Your task to perform on an android device: toggle notifications settings in the gmail app Image 0: 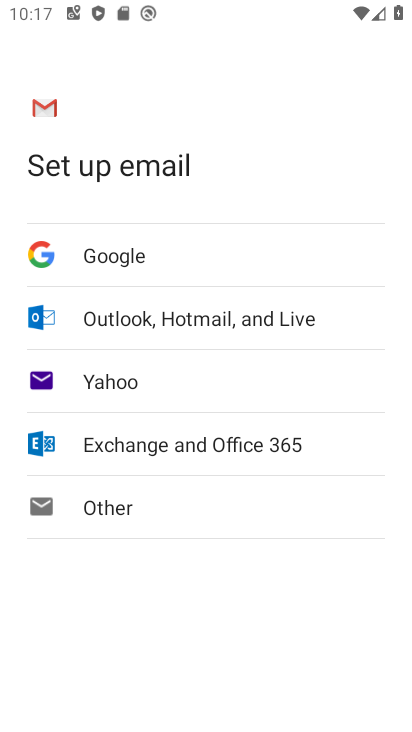
Step 0: press home button
Your task to perform on an android device: toggle notifications settings in the gmail app Image 1: 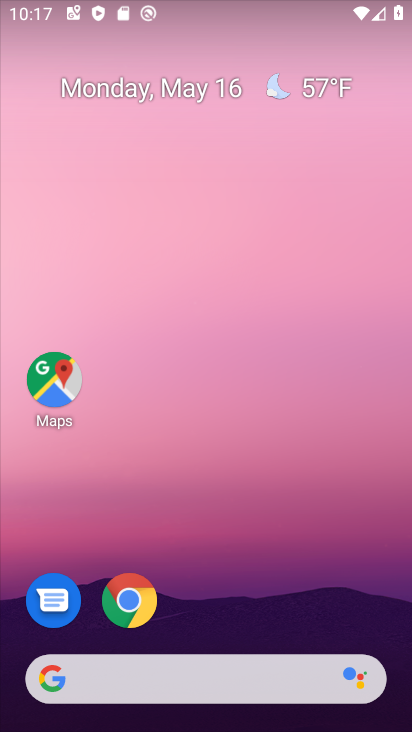
Step 1: drag from (336, 645) to (275, 189)
Your task to perform on an android device: toggle notifications settings in the gmail app Image 2: 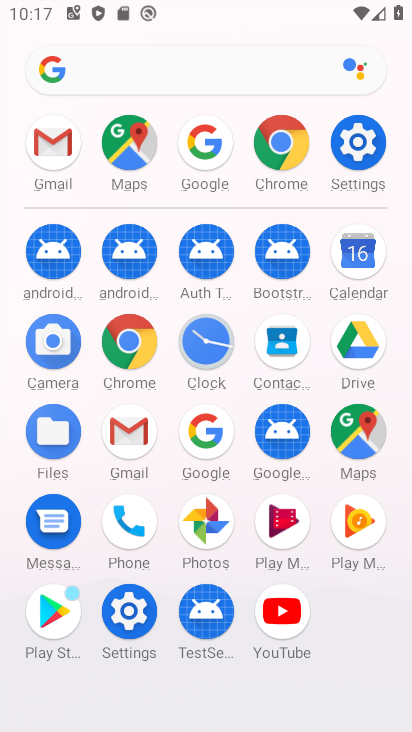
Step 2: click (130, 423)
Your task to perform on an android device: toggle notifications settings in the gmail app Image 3: 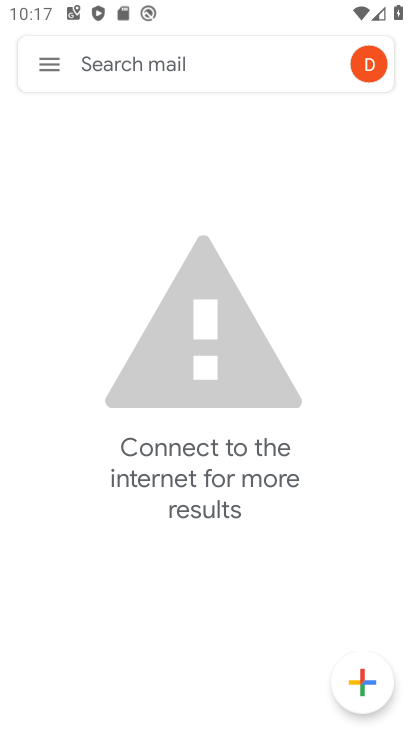
Step 3: click (47, 71)
Your task to perform on an android device: toggle notifications settings in the gmail app Image 4: 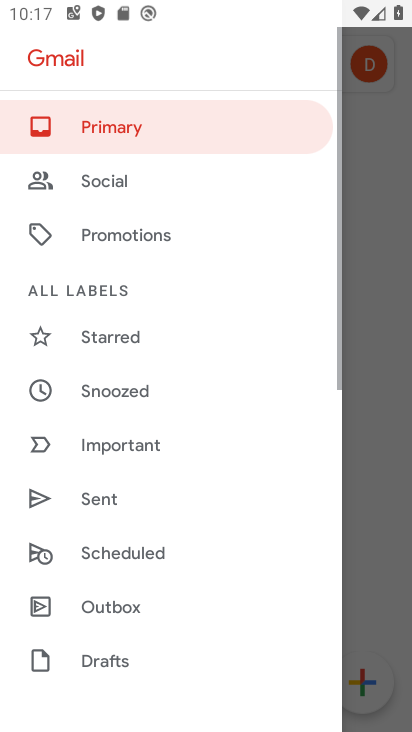
Step 4: drag from (201, 582) to (201, 194)
Your task to perform on an android device: toggle notifications settings in the gmail app Image 5: 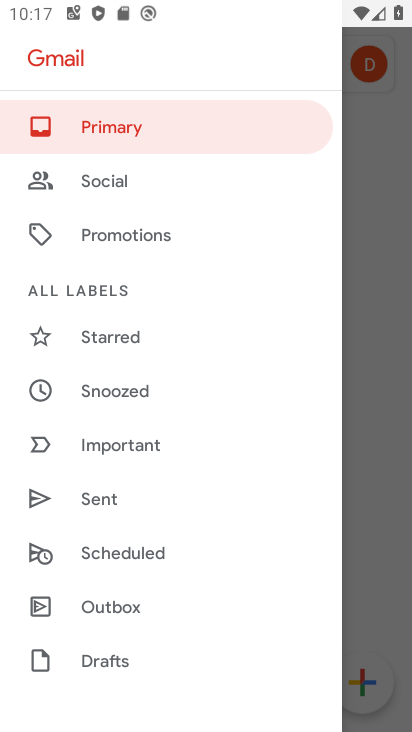
Step 5: drag from (193, 634) to (173, 289)
Your task to perform on an android device: toggle notifications settings in the gmail app Image 6: 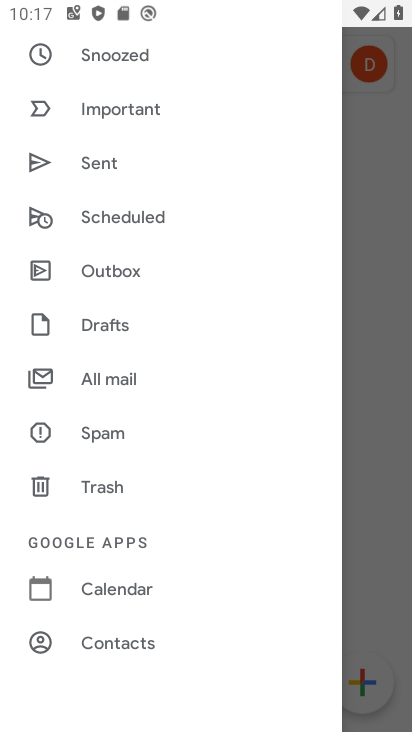
Step 6: drag from (162, 602) to (229, 239)
Your task to perform on an android device: toggle notifications settings in the gmail app Image 7: 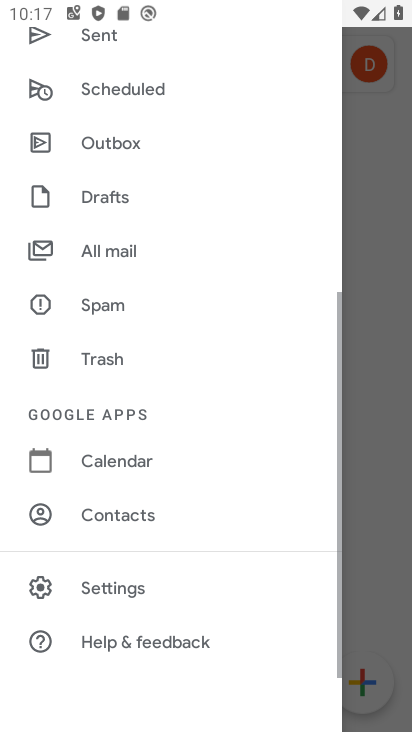
Step 7: click (139, 590)
Your task to perform on an android device: toggle notifications settings in the gmail app Image 8: 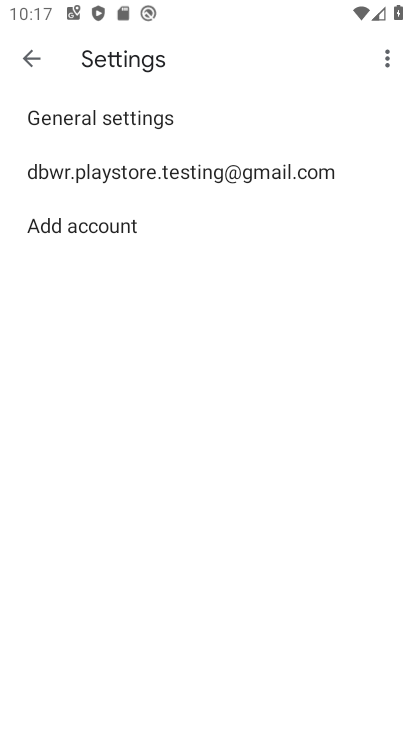
Step 8: click (269, 187)
Your task to perform on an android device: toggle notifications settings in the gmail app Image 9: 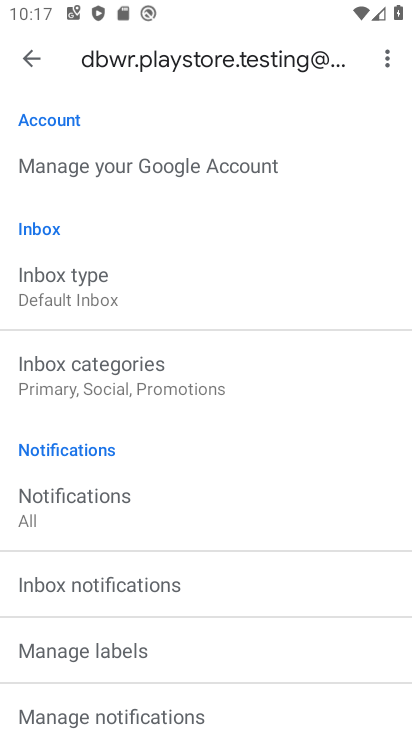
Step 9: drag from (220, 674) to (261, 299)
Your task to perform on an android device: toggle notifications settings in the gmail app Image 10: 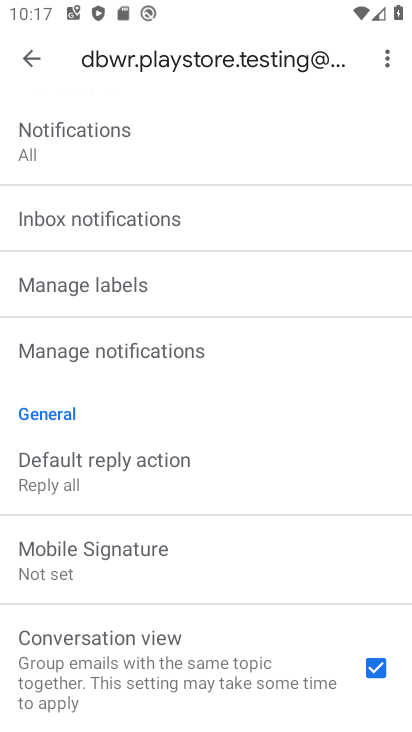
Step 10: drag from (216, 228) to (247, 467)
Your task to perform on an android device: toggle notifications settings in the gmail app Image 11: 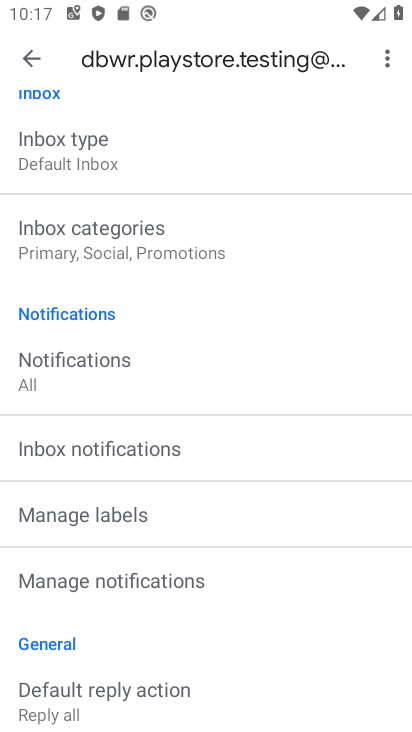
Step 11: click (111, 370)
Your task to perform on an android device: toggle notifications settings in the gmail app Image 12: 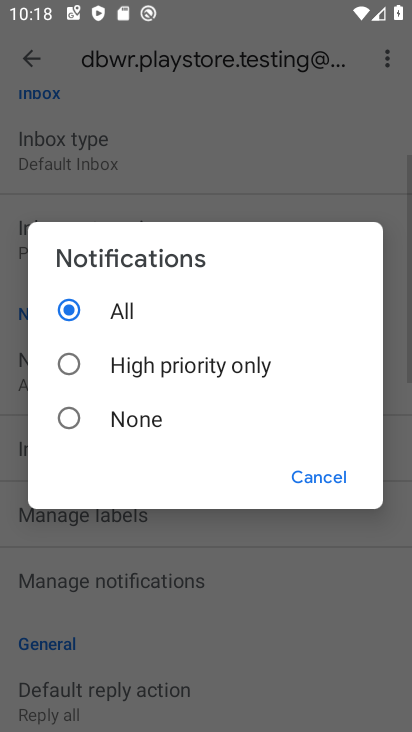
Step 12: click (144, 413)
Your task to perform on an android device: toggle notifications settings in the gmail app Image 13: 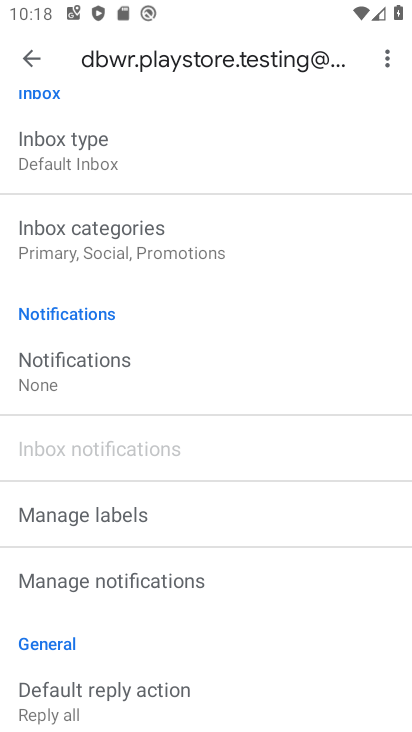
Step 13: task complete